Your task to perform on an android device: snooze an email in the gmail app Image 0: 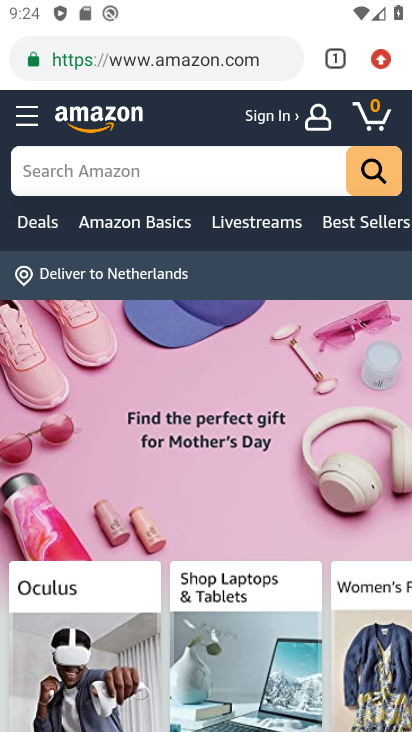
Step 0: press home button
Your task to perform on an android device: snooze an email in the gmail app Image 1: 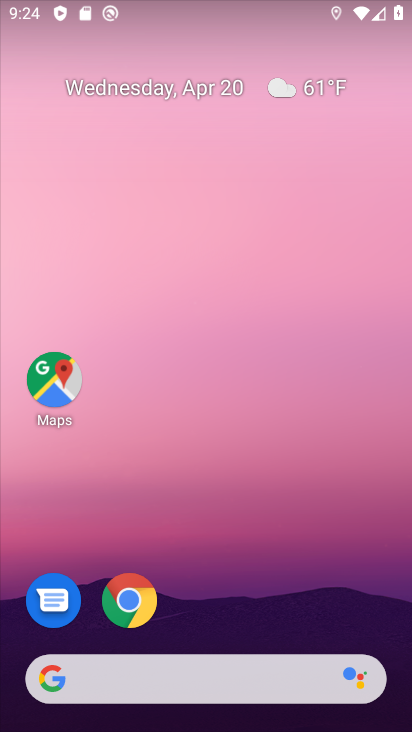
Step 1: drag from (375, 612) to (399, 9)
Your task to perform on an android device: snooze an email in the gmail app Image 2: 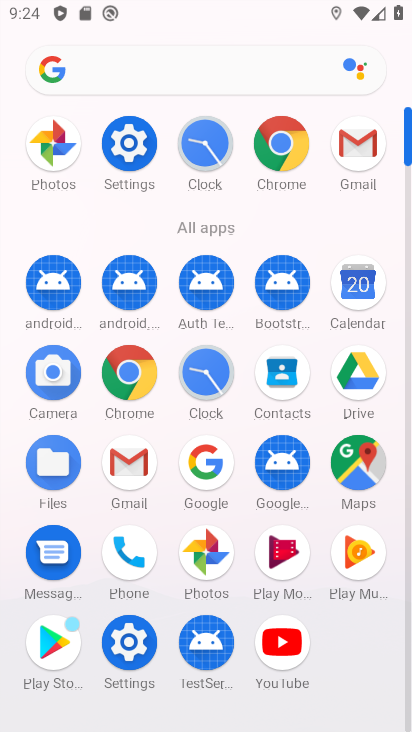
Step 2: click (367, 150)
Your task to perform on an android device: snooze an email in the gmail app Image 3: 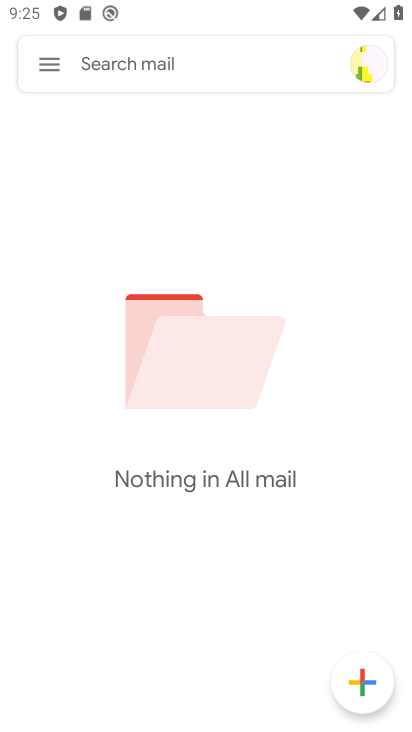
Step 3: task complete